Your task to perform on an android device: see creations saved in the google photos Image 0: 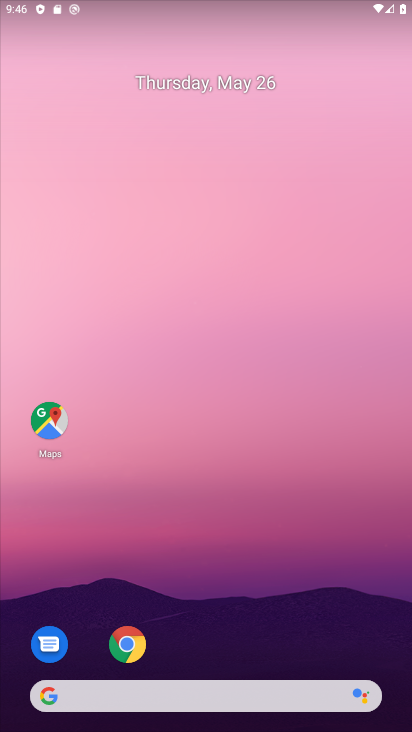
Step 0: drag from (354, 636) to (372, 191)
Your task to perform on an android device: see creations saved in the google photos Image 1: 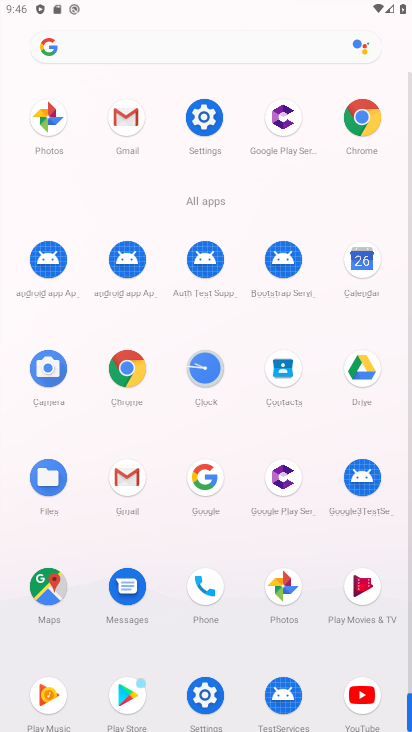
Step 1: click (295, 593)
Your task to perform on an android device: see creations saved in the google photos Image 2: 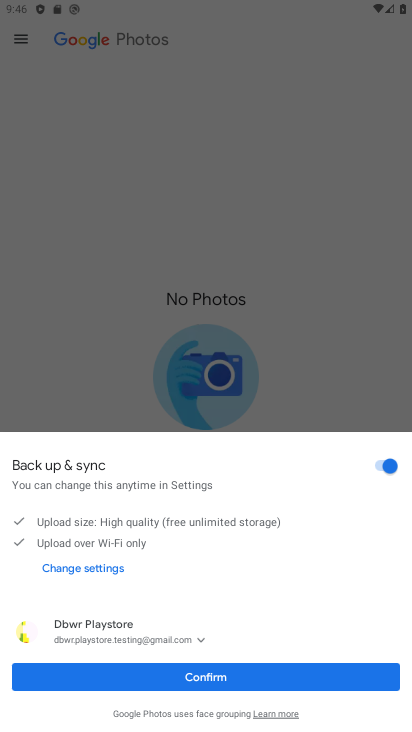
Step 2: click (284, 670)
Your task to perform on an android device: see creations saved in the google photos Image 3: 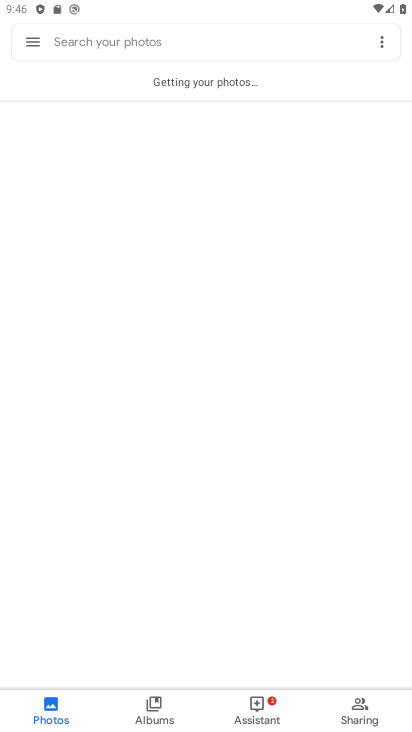
Step 3: click (159, 35)
Your task to perform on an android device: see creations saved in the google photos Image 4: 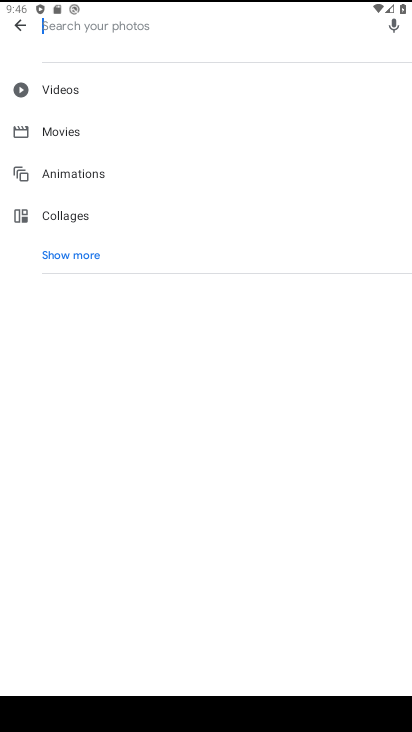
Step 4: click (115, 260)
Your task to perform on an android device: see creations saved in the google photos Image 5: 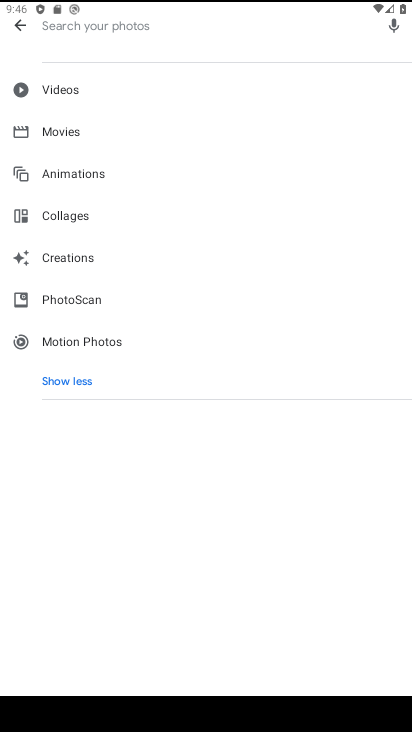
Step 5: click (97, 263)
Your task to perform on an android device: see creations saved in the google photos Image 6: 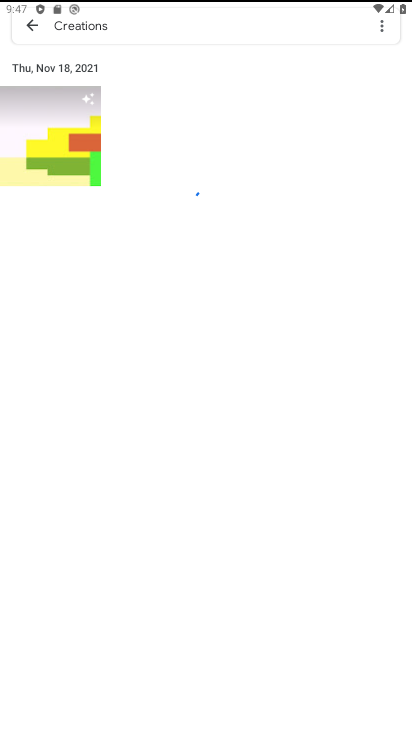
Step 6: task complete